Your task to perform on an android device: turn on data saver in the chrome app Image 0: 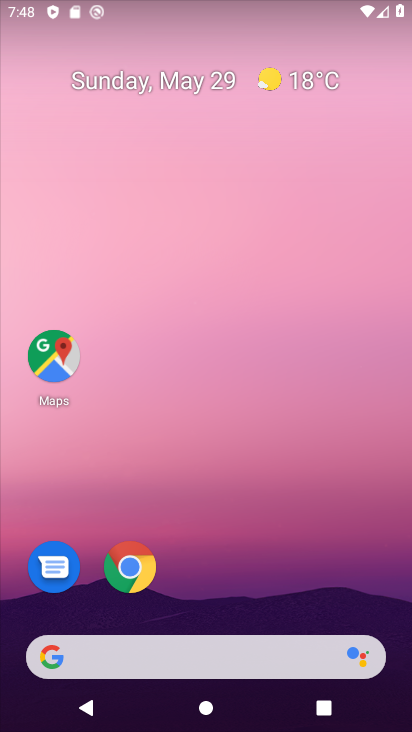
Step 0: click (127, 560)
Your task to perform on an android device: turn on data saver in the chrome app Image 1: 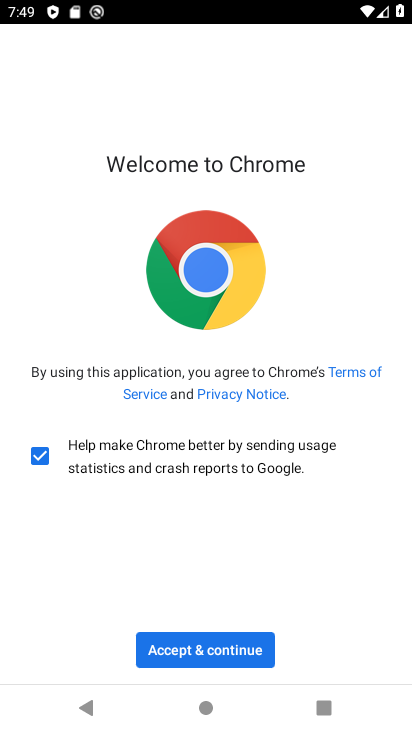
Step 1: click (216, 641)
Your task to perform on an android device: turn on data saver in the chrome app Image 2: 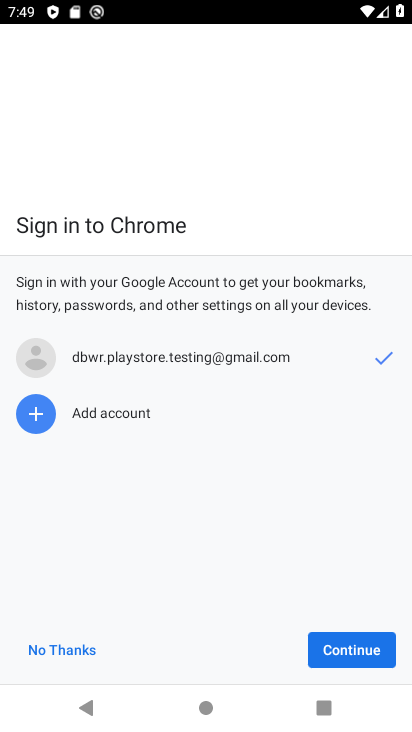
Step 2: click (347, 642)
Your task to perform on an android device: turn on data saver in the chrome app Image 3: 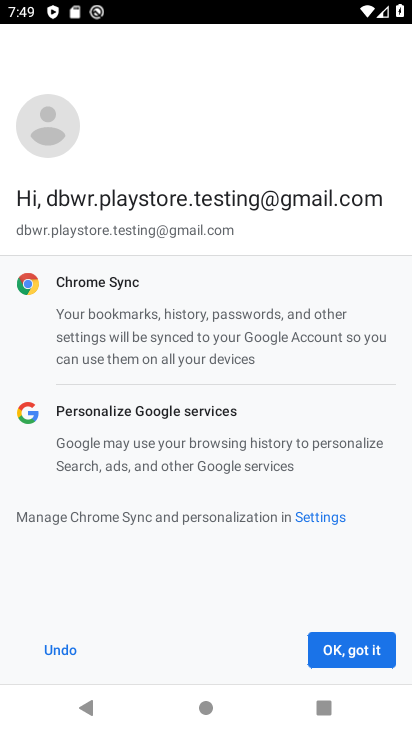
Step 3: click (347, 641)
Your task to perform on an android device: turn on data saver in the chrome app Image 4: 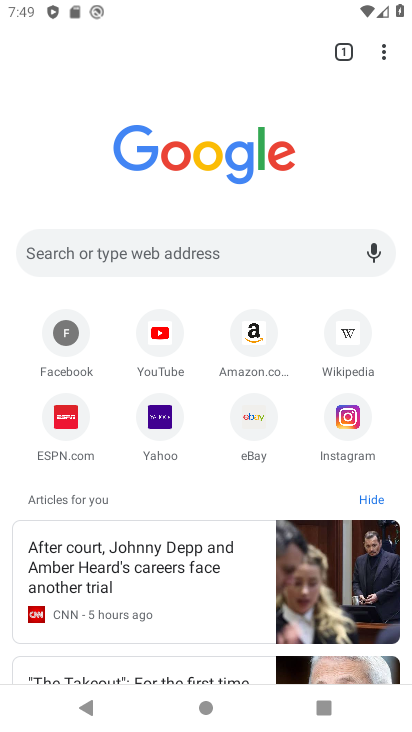
Step 4: click (382, 53)
Your task to perform on an android device: turn on data saver in the chrome app Image 5: 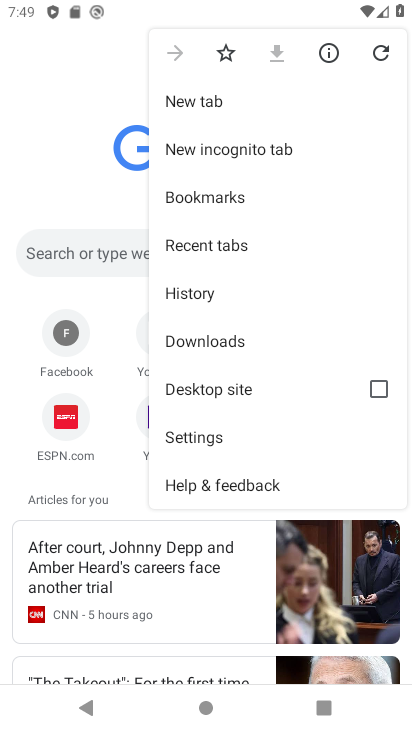
Step 5: click (205, 435)
Your task to perform on an android device: turn on data saver in the chrome app Image 6: 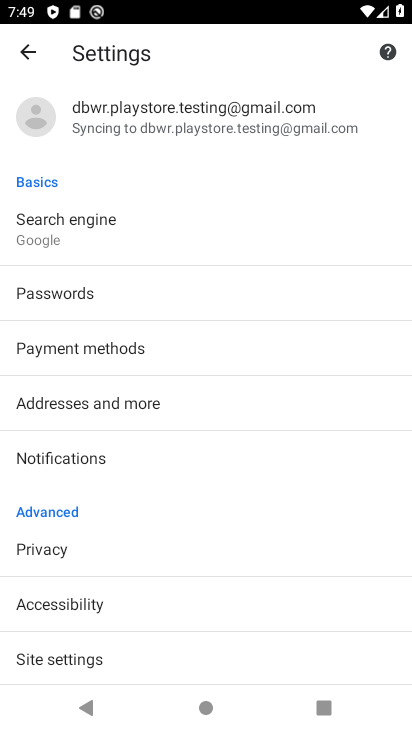
Step 6: drag from (189, 659) to (183, 321)
Your task to perform on an android device: turn on data saver in the chrome app Image 7: 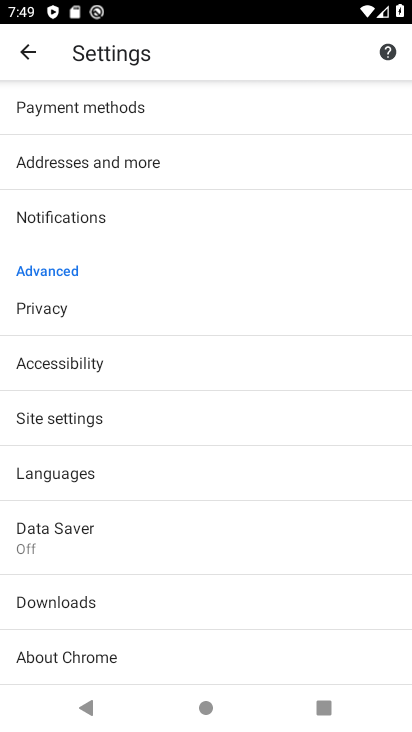
Step 7: click (63, 543)
Your task to perform on an android device: turn on data saver in the chrome app Image 8: 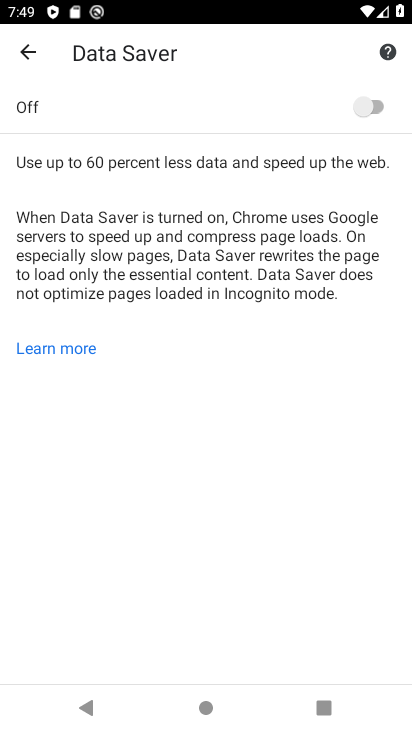
Step 8: click (374, 100)
Your task to perform on an android device: turn on data saver in the chrome app Image 9: 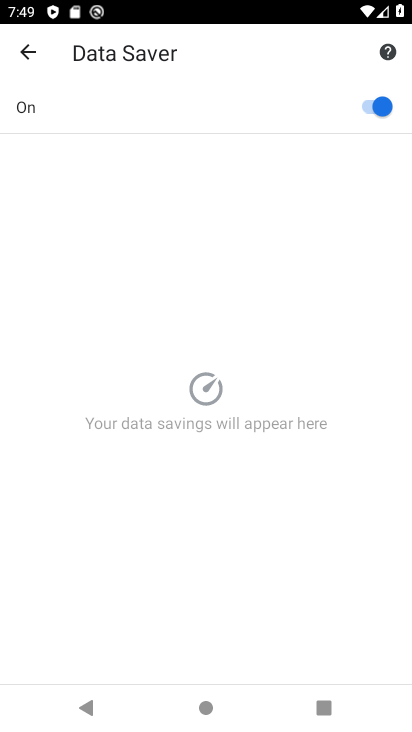
Step 9: task complete